Your task to perform on an android device: show emergency info Image 0: 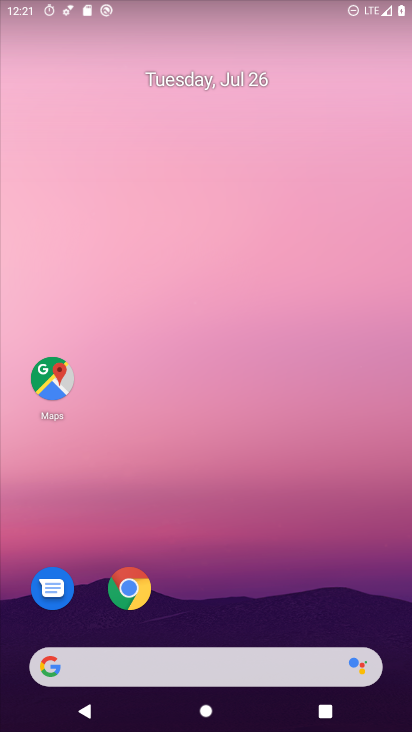
Step 0: drag from (237, 512) to (235, 126)
Your task to perform on an android device: show emergency info Image 1: 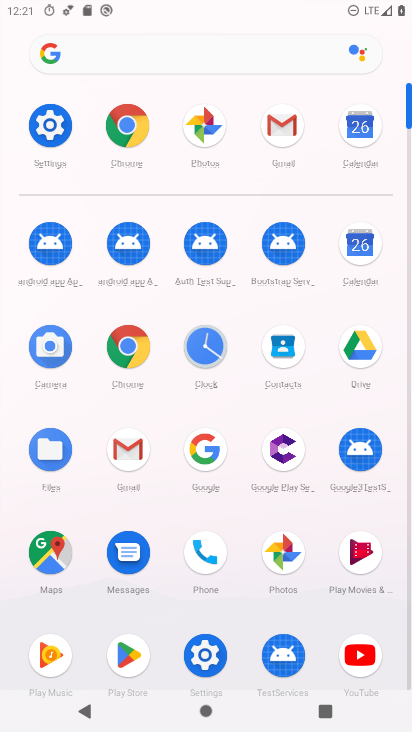
Step 1: click (217, 658)
Your task to perform on an android device: show emergency info Image 2: 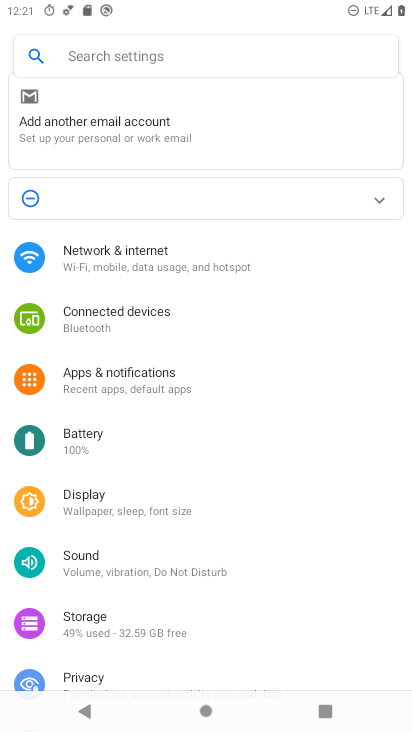
Step 2: drag from (350, 580) to (340, 89)
Your task to perform on an android device: show emergency info Image 3: 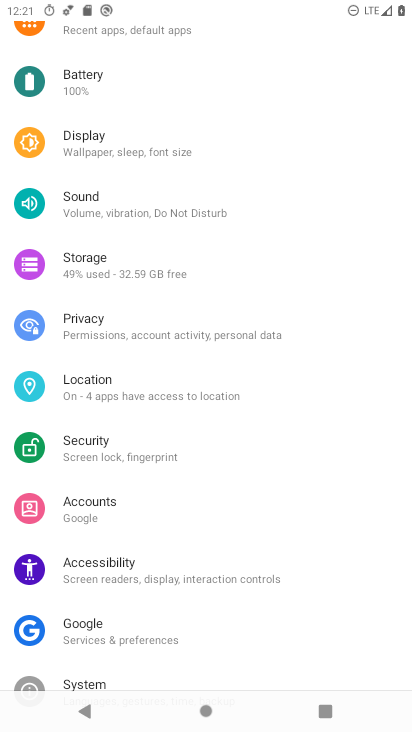
Step 3: drag from (215, 589) to (277, 130)
Your task to perform on an android device: show emergency info Image 4: 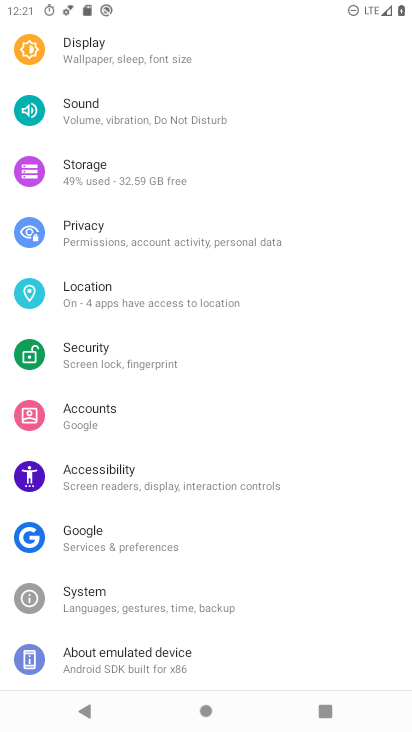
Step 4: click (151, 674)
Your task to perform on an android device: show emergency info Image 5: 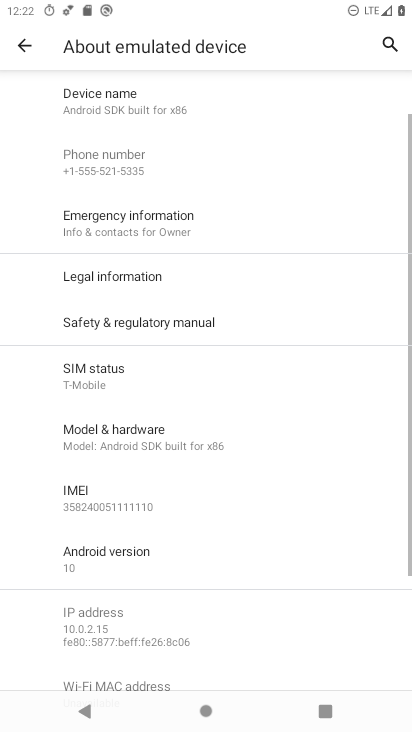
Step 5: drag from (187, 426) to (215, 212)
Your task to perform on an android device: show emergency info Image 6: 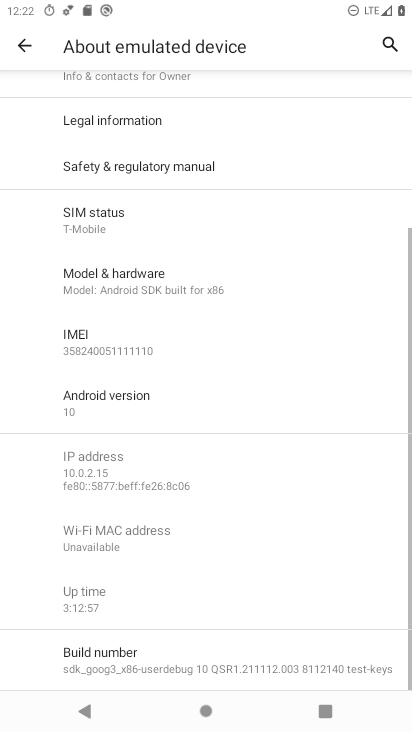
Step 6: drag from (204, 604) to (243, 211)
Your task to perform on an android device: show emergency info Image 7: 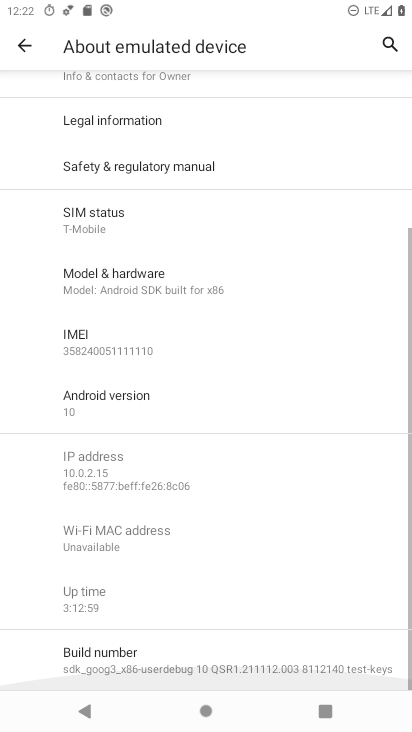
Step 7: drag from (236, 161) to (284, 580)
Your task to perform on an android device: show emergency info Image 8: 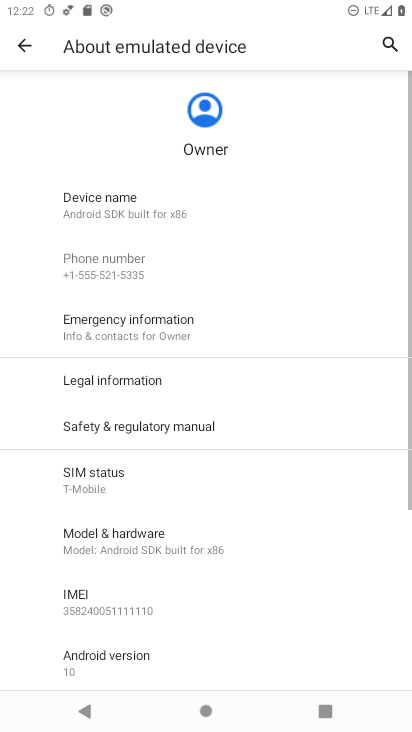
Step 8: click (209, 330)
Your task to perform on an android device: show emergency info Image 9: 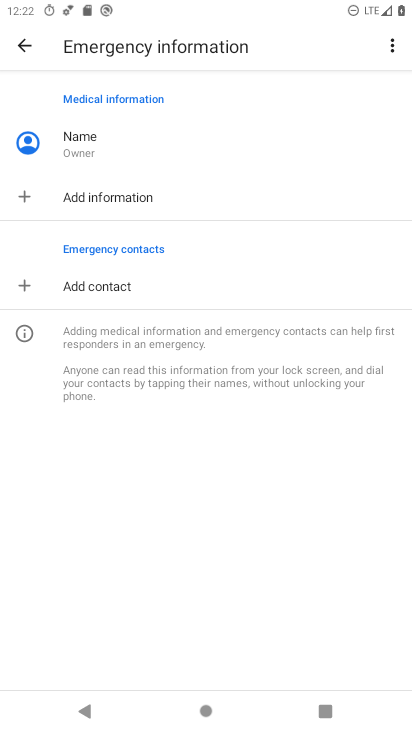
Step 9: task complete